Your task to perform on an android device: turn on airplane mode Image 0: 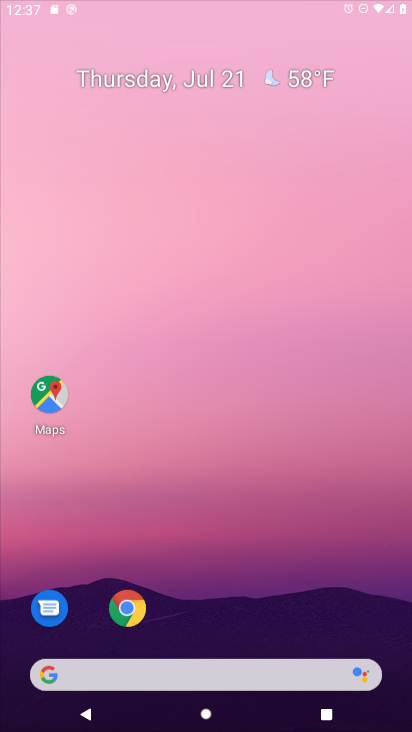
Step 0: press home button
Your task to perform on an android device: turn on airplane mode Image 1: 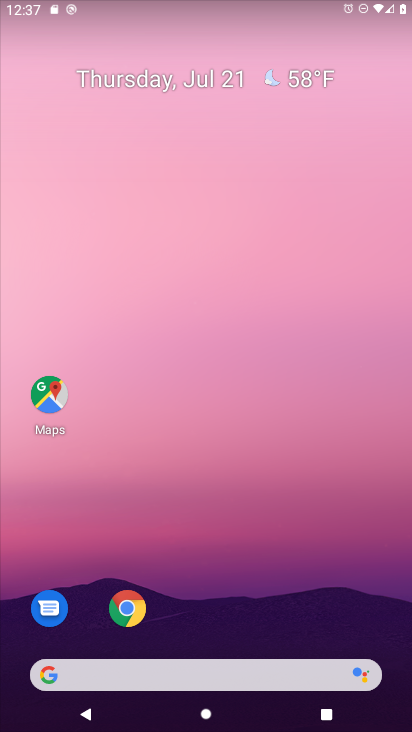
Step 1: drag from (222, 35) to (294, 608)
Your task to perform on an android device: turn on airplane mode Image 2: 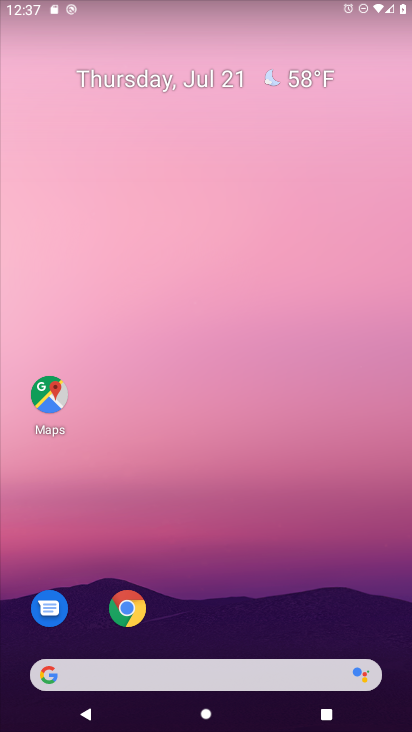
Step 2: drag from (205, 40) to (273, 650)
Your task to perform on an android device: turn on airplane mode Image 3: 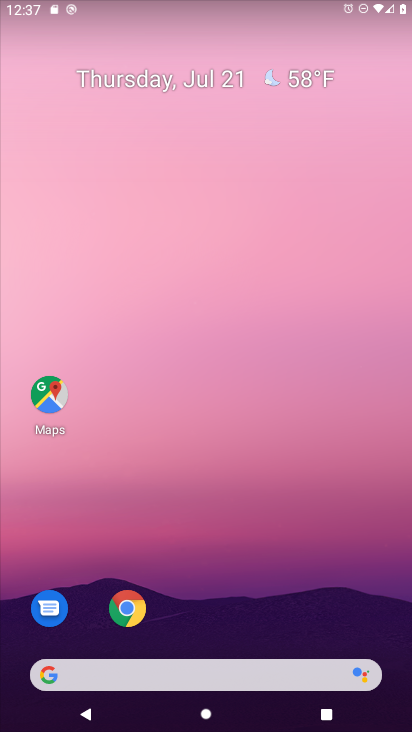
Step 3: drag from (192, 0) to (201, 722)
Your task to perform on an android device: turn on airplane mode Image 4: 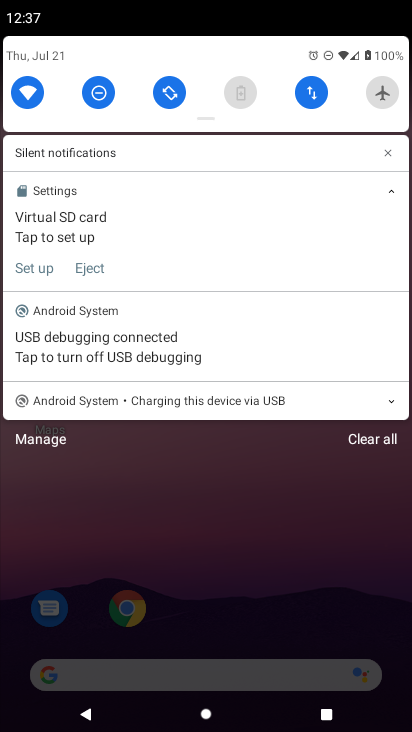
Step 4: click (378, 126)
Your task to perform on an android device: turn on airplane mode Image 5: 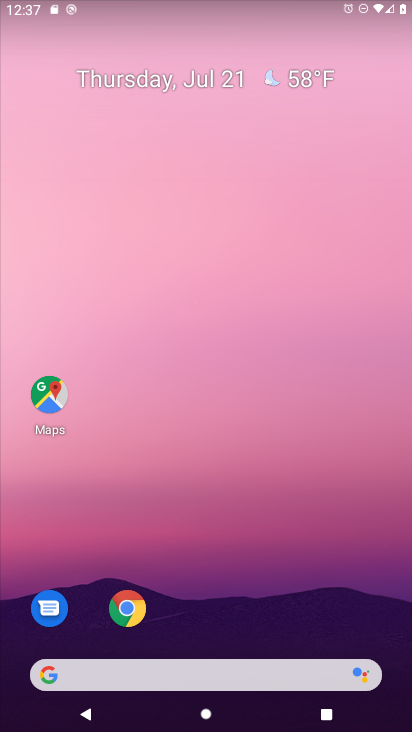
Step 5: task complete